Your task to perform on an android device: Show me popular videos on Youtube Image 0: 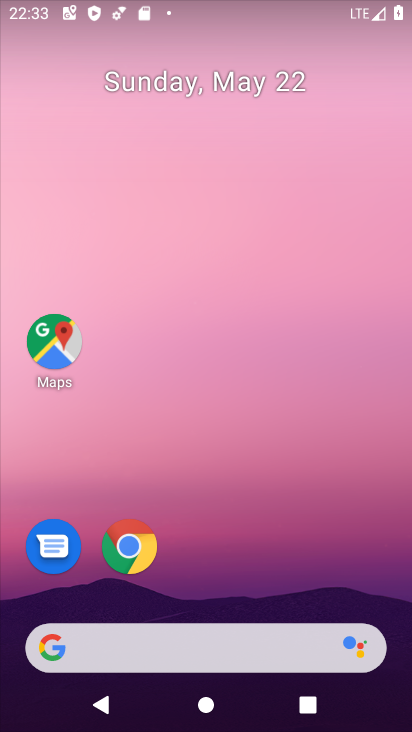
Step 0: click (275, 172)
Your task to perform on an android device: Show me popular videos on Youtube Image 1: 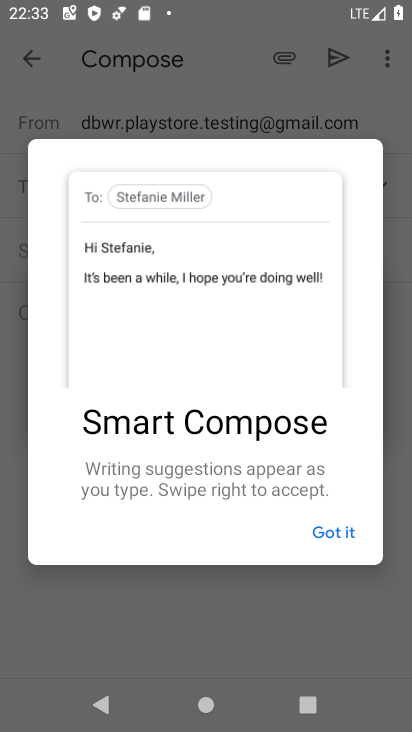
Step 1: press home button
Your task to perform on an android device: Show me popular videos on Youtube Image 2: 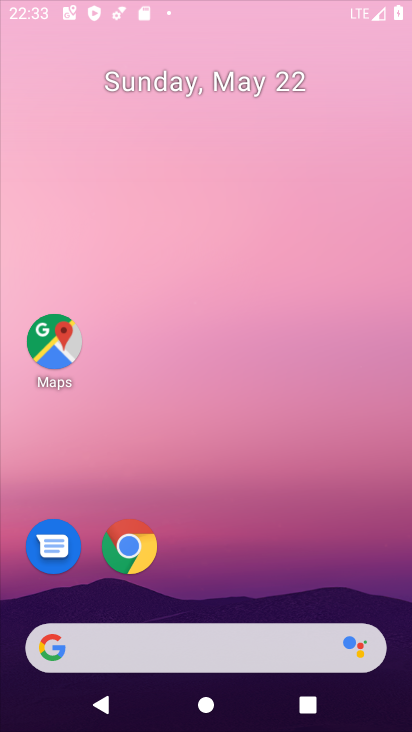
Step 2: drag from (205, 618) to (281, 91)
Your task to perform on an android device: Show me popular videos on Youtube Image 3: 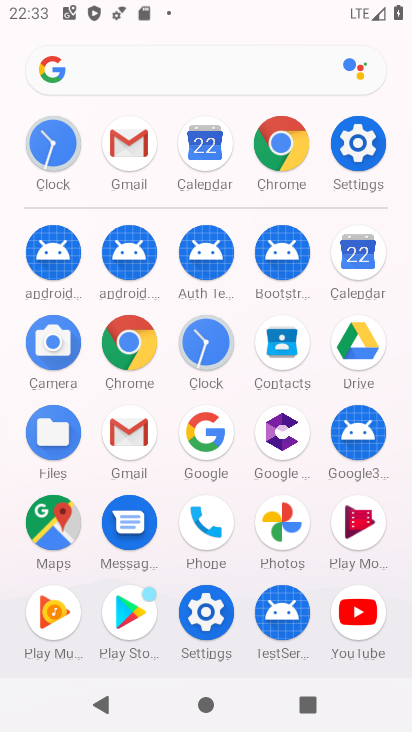
Step 3: click (373, 591)
Your task to perform on an android device: Show me popular videos on Youtube Image 4: 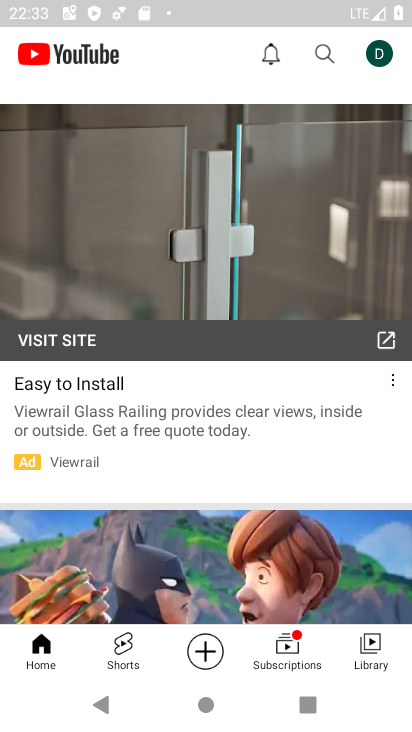
Step 4: task complete